Your task to perform on an android device: change your default location settings in chrome Image 0: 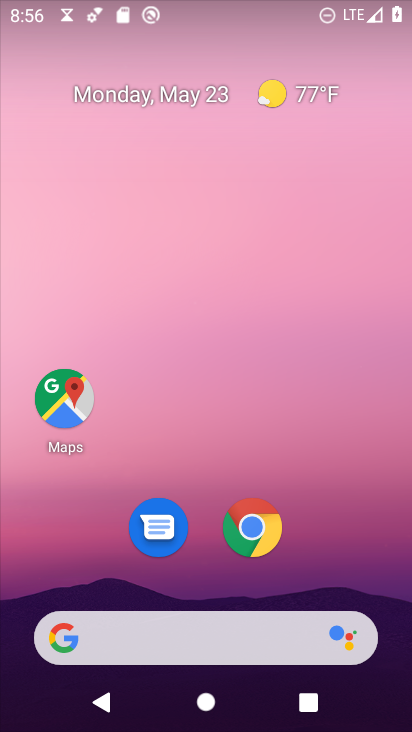
Step 0: press home button
Your task to perform on an android device: change your default location settings in chrome Image 1: 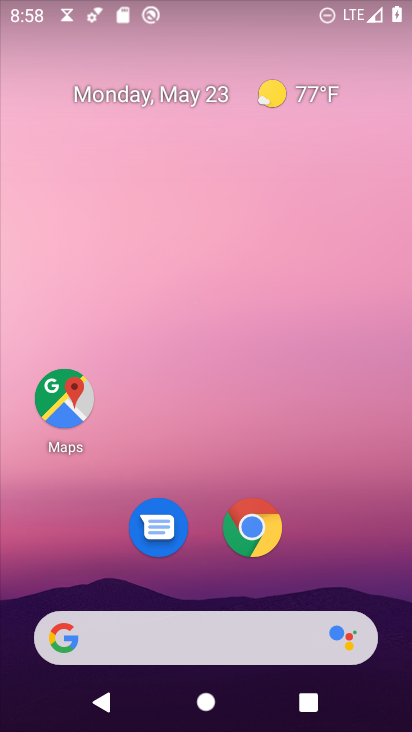
Step 1: drag from (150, 668) to (130, 108)
Your task to perform on an android device: change your default location settings in chrome Image 2: 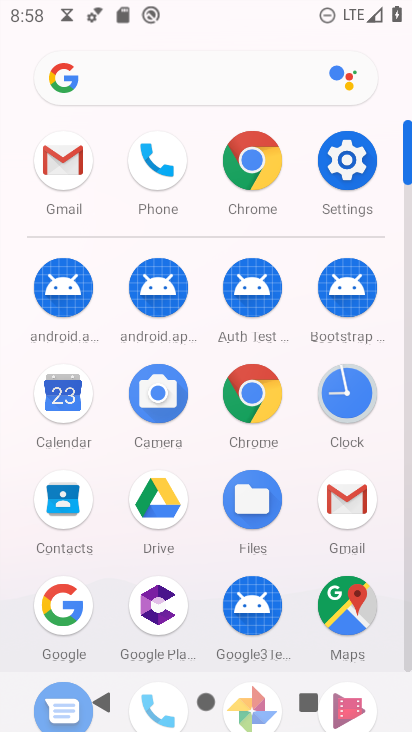
Step 2: click (250, 154)
Your task to perform on an android device: change your default location settings in chrome Image 3: 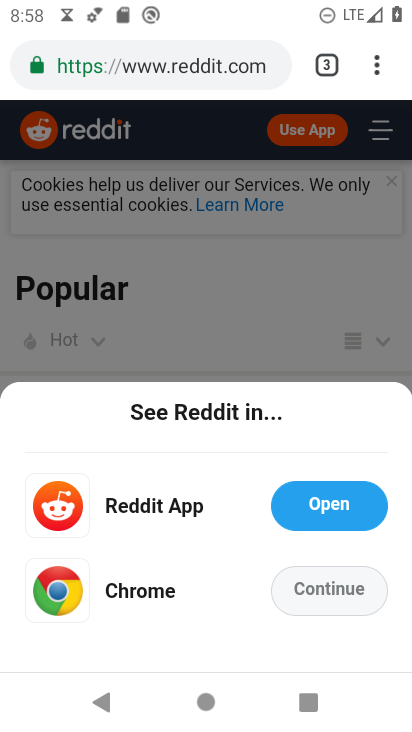
Step 3: click (366, 78)
Your task to perform on an android device: change your default location settings in chrome Image 4: 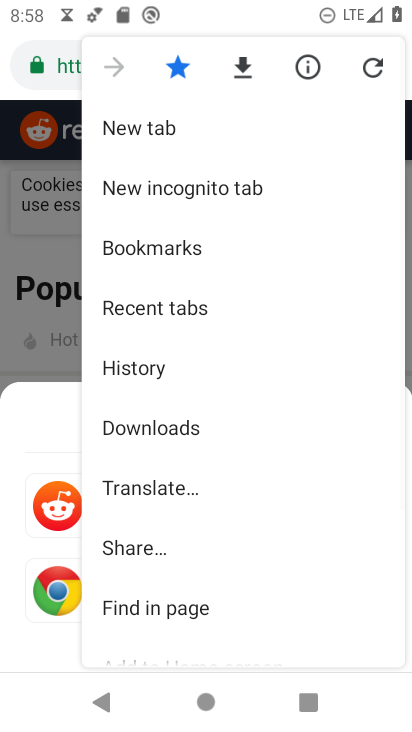
Step 4: drag from (176, 547) to (238, 234)
Your task to perform on an android device: change your default location settings in chrome Image 5: 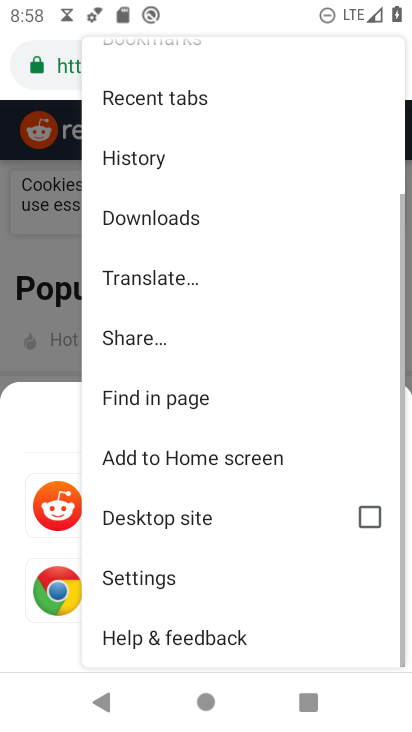
Step 5: click (169, 577)
Your task to perform on an android device: change your default location settings in chrome Image 6: 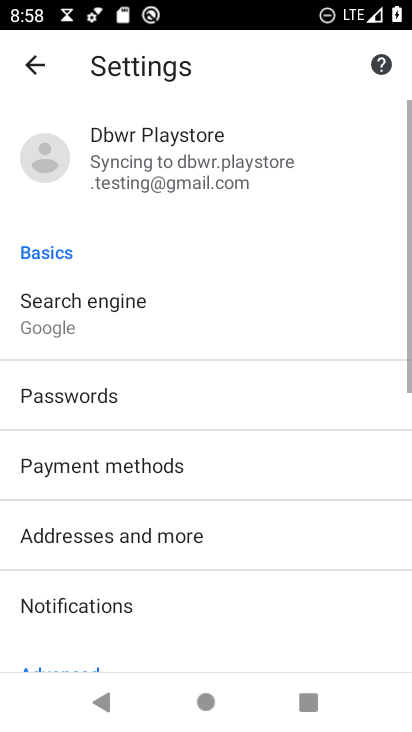
Step 6: drag from (153, 587) to (164, 254)
Your task to perform on an android device: change your default location settings in chrome Image 7: 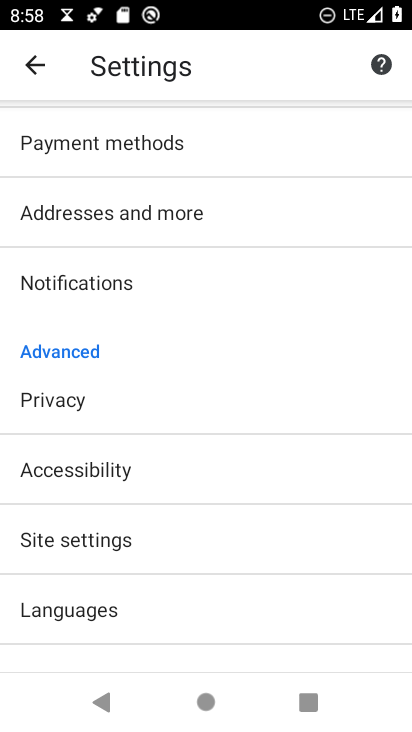
Step 7: drag from (157, 602) to (155, 371)
Your task to perform on an android device: change your default location settings in chrome Image 8: 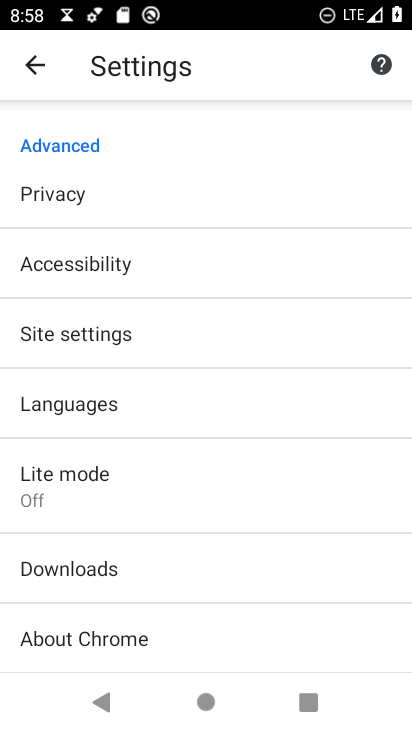
Step 8: drag from (118, 539) to (124, 364)
Your task to perform on an android device: change your default location settings in chrome Image 9: 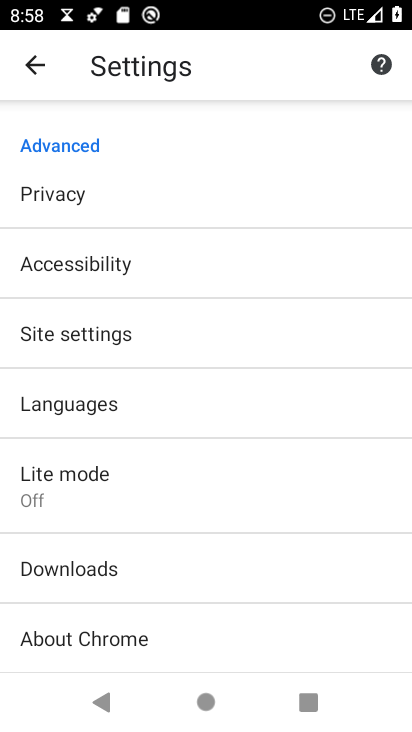
Step 9: click (78, 343)
Your task to perform on an android device: change your default location settings in chrome Image 10: 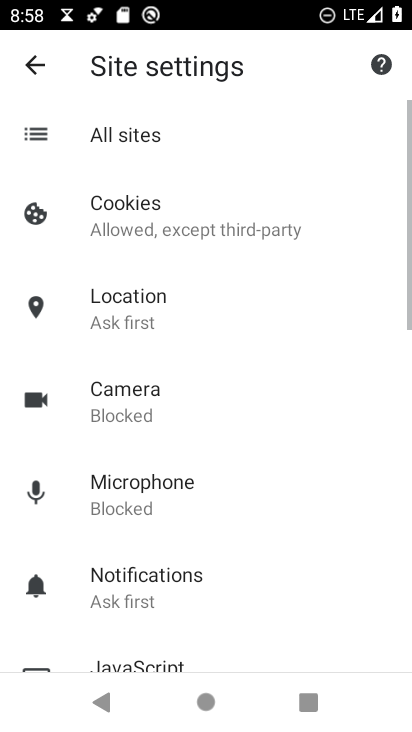
Step 10: click (153, 336)
Your task to perform on an android device: change your default location settings in chrome Image 11: 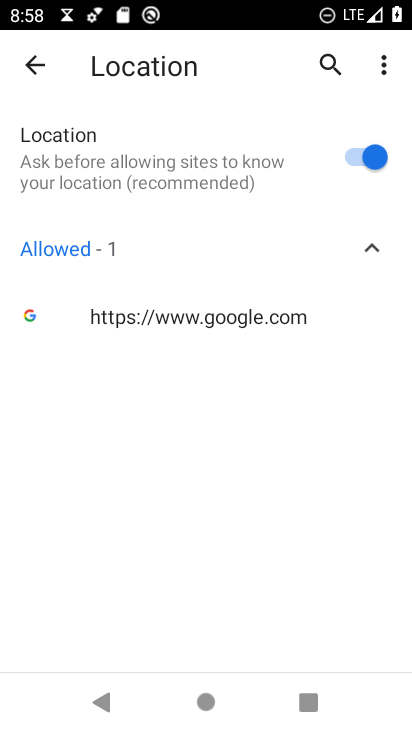
Step 11: task complete